Your task to perform on an android device: turn on priority inbox in the gmail app Image 0: 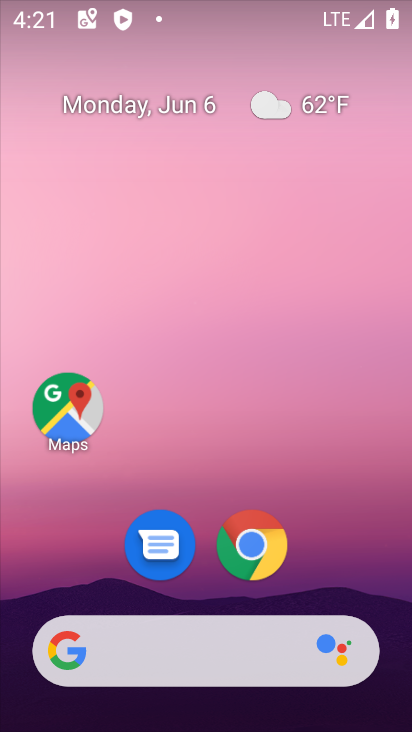
Step 0: drag from (271, 723) to (274, 152)
Your task to perform on an android device: turn on priority inbox in the gmail app Image 1: 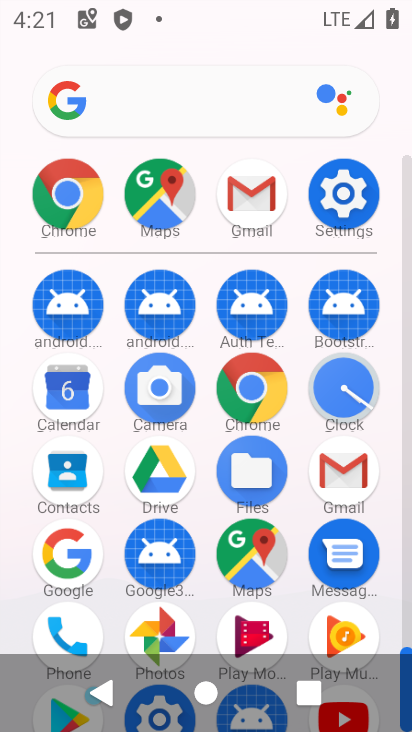
Step 1: click (355, 482)
Your task to perform on an android device: turn on priority inbox in the gmail app Image 2: 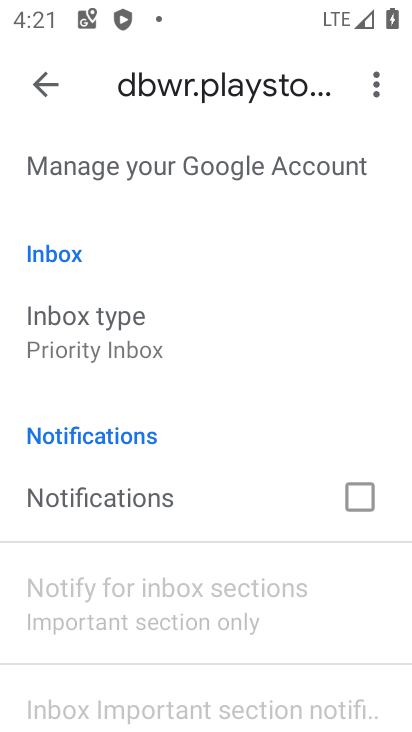
Step 2: task complete